Your task to perform on an android device: see tabs open on other devices in the chrome app Image 0: 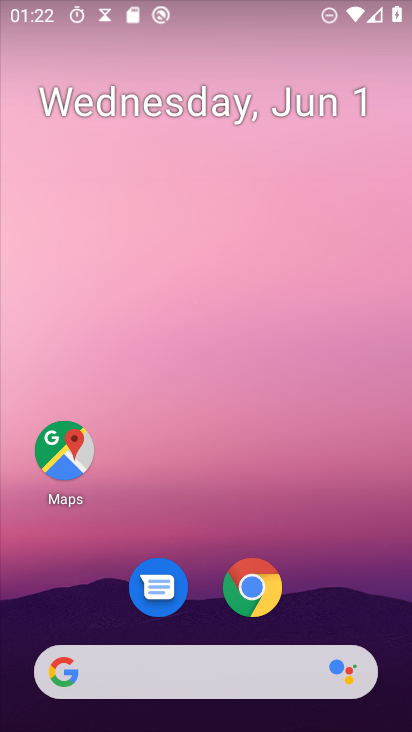
Step 0: click (250, 578)
Your task to perform on an android device: see tabs open on other devices in the chrome app Image 1: 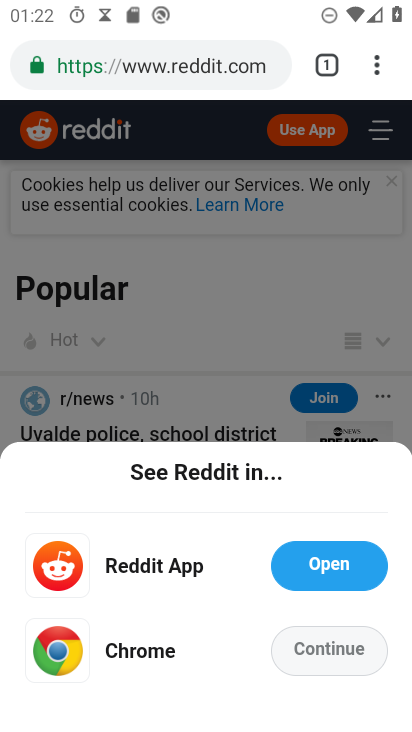
Step 1: click (393, 61)
Your task to perform on an android device: see tabs open on other devices in the chrome app Image 2: 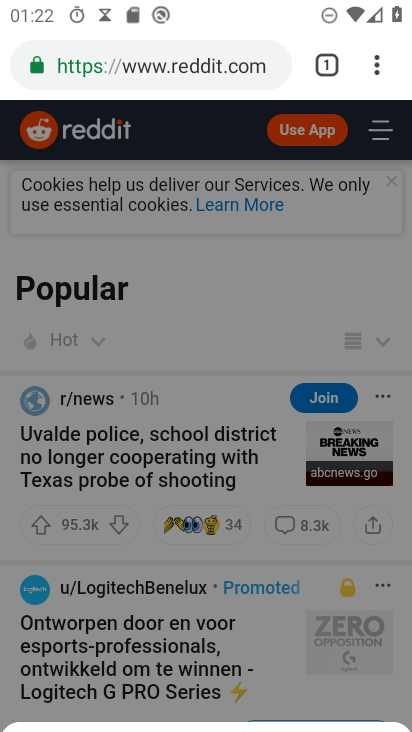
Step 2: click (393, 64)
Your task to perform on an android device: see tabs open on other devices in the chrome app Image 3: 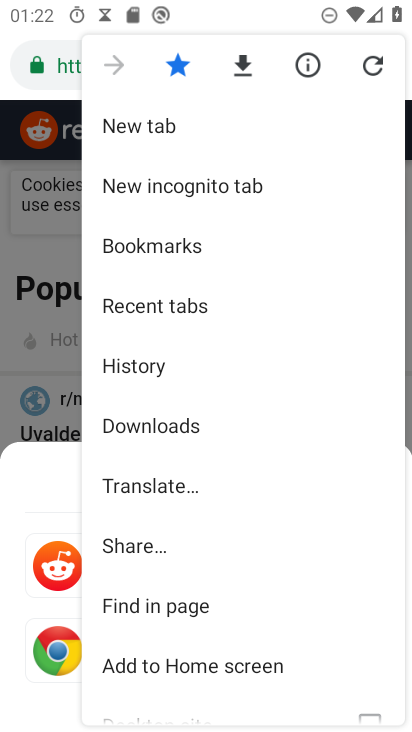
Step 3: click (180, 304)
Your task to perform on an android device: see tabs open on other devices in the chrome app Image 4: 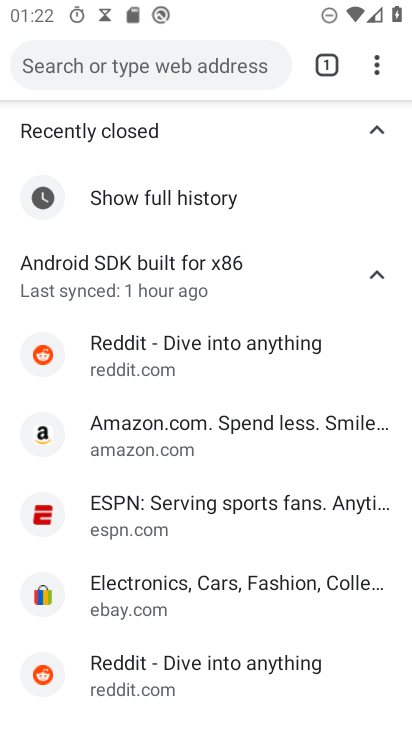
Step 4: task complete